Your task to perform on an android device: visit the assistant section in the google photos Image 0: 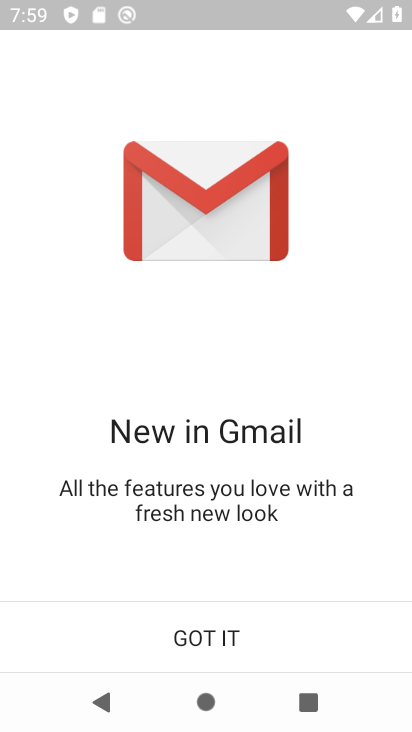
Step 0: press home button
Your task to perform on an android device: visit the assistant section in the google photos Image 1: 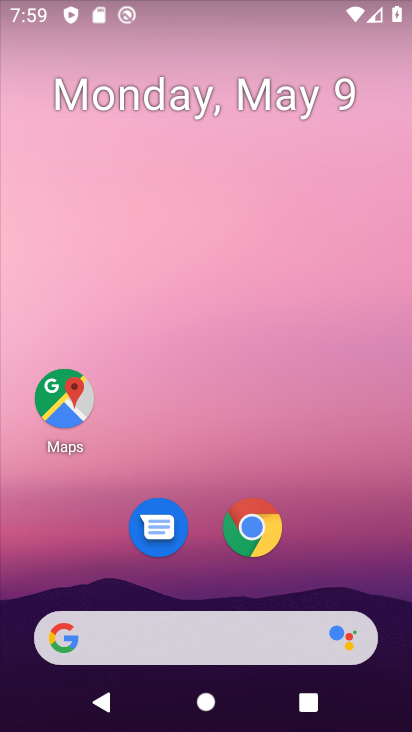
Step 1: press home button
Your task to perform on an android device: visit the assistant section in the google photos Image 2: 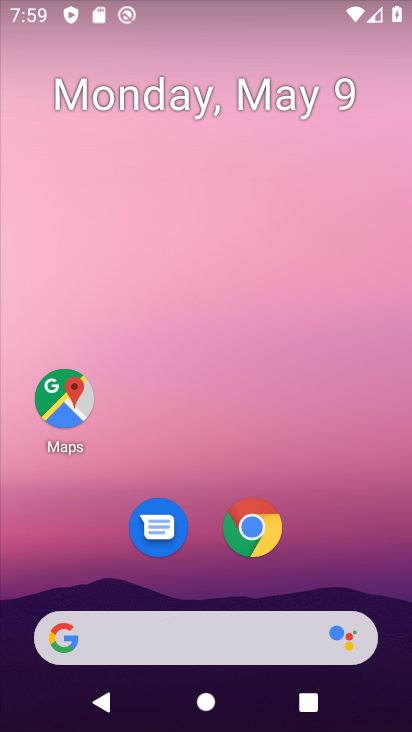
Step 2: drag from (201, 583) to (244, 76)
Your task to perform on an android device: visit the assistant section in the google photos Image 3: 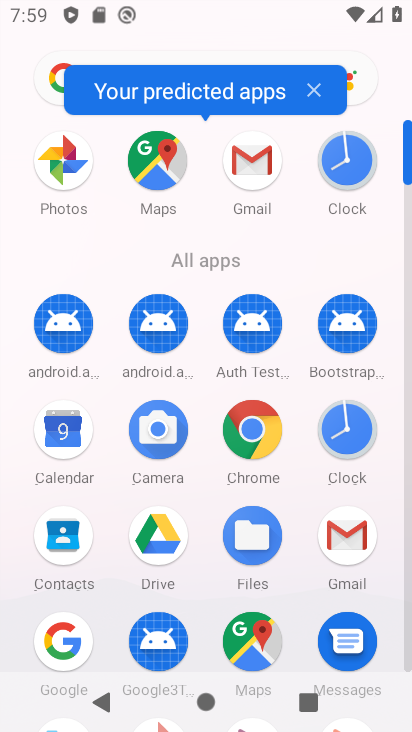
Step 3: drag from (207, 581) to (241, 91)
Your task to perform on an android device: visit the assistant section in the google photos Image 4: 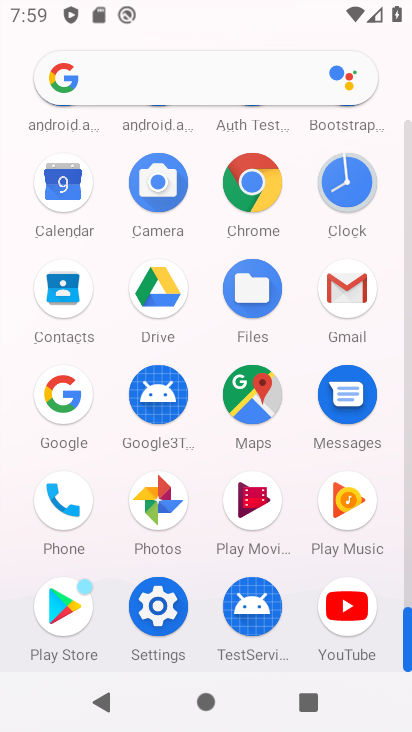
Step 4: click (158, 509)
Your task to perform on an android device: visit the assistant section in the google photos Image 5: 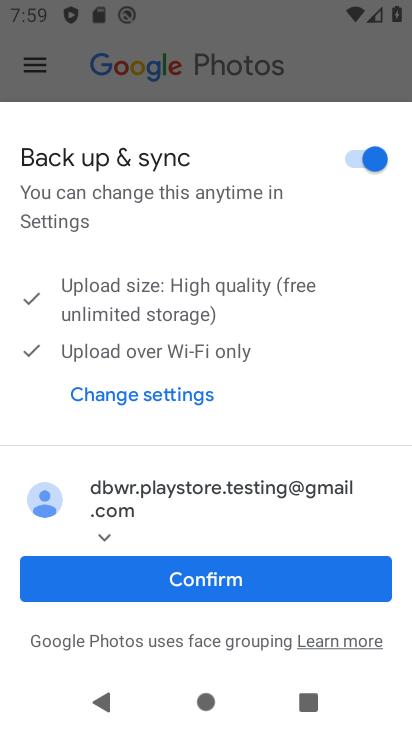
Step 5: click (209, 581)
Your task to perform on an android device: visit the assistant section in the google photos Image 6: 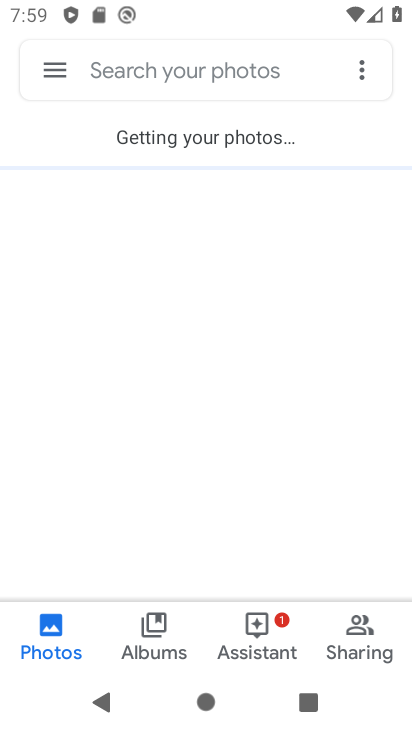
Step 6: click (258, 624)
Your task to perform on an android device: visit the assistant section in the google photos Image 7: 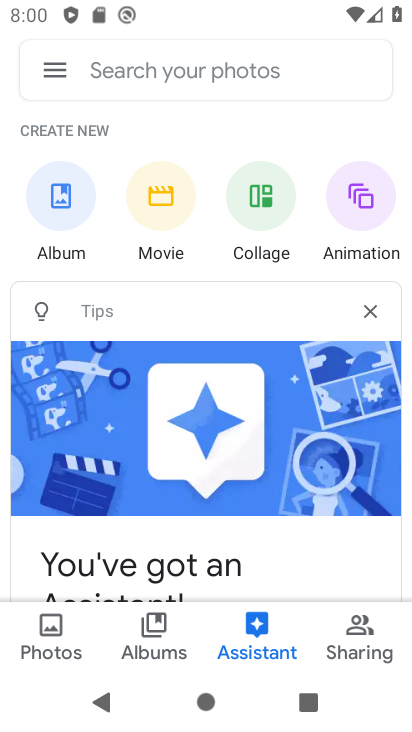
Step 7: task complete